Your task to perform on an android device: turn vacation reply on in the gmail app Image 0: 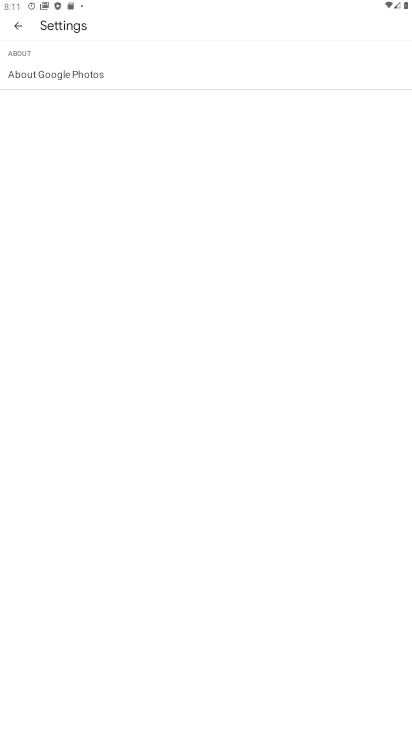
Step 0: press home button
Your task to perform on an android device: turn vacation reply on in the gmail app Image 1: 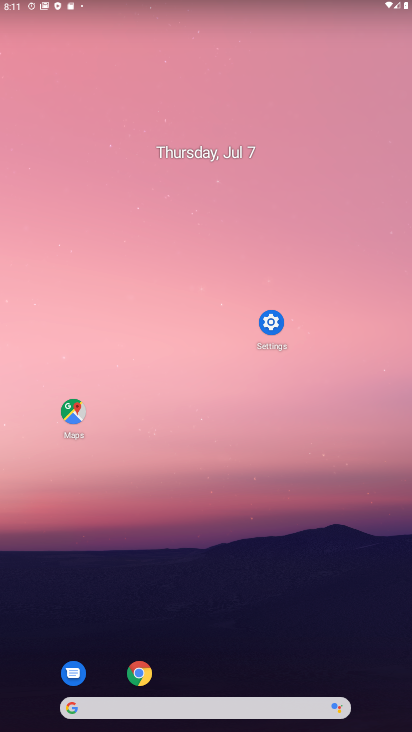
Step 1: drag from (376, 633) to (239, 121)
Your task to perform on an android device: turn vacation reply on in the gmail app Image 2: 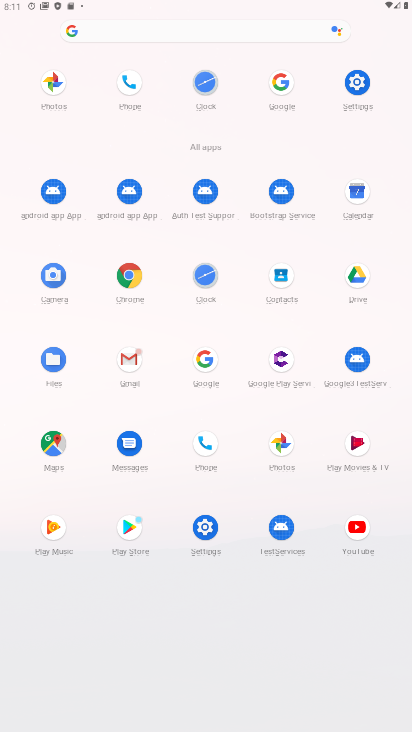
Step 2: drag from (127, 353) to (261, 445)
Your task to perform on an android device: turn vacation reply on in the gmail app Image 3: 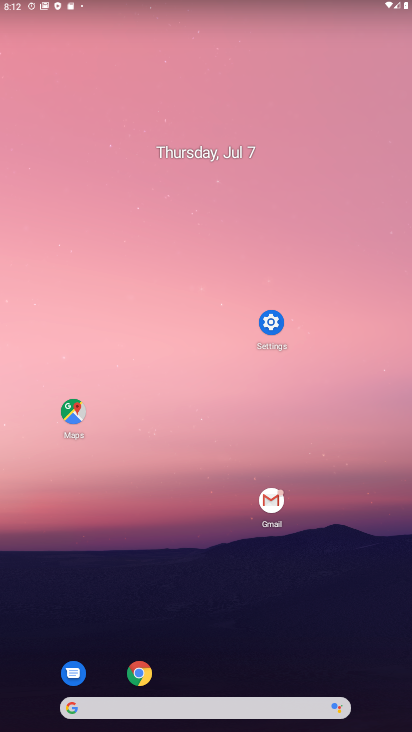
Step 3: click (268, 494)
Your task to perform on an android device: turn vacation reply on in the gmail app Image 4: 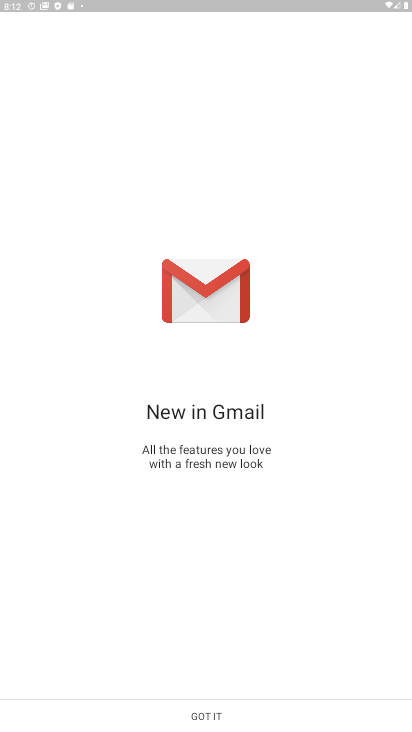
Step 4: click (222, 701)
Your task to perform on an android device: turn vacation reply on in the gmail app Image 5: 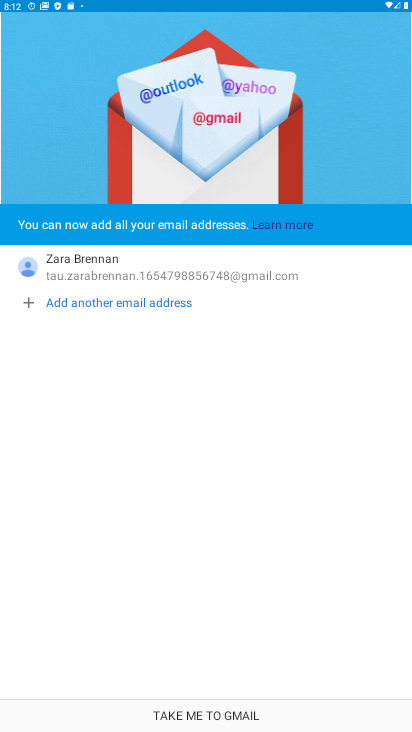
Step 5: click (222, 701)
Your task to perform on an android device: turn vacation reply on in the gmail app Image 6: 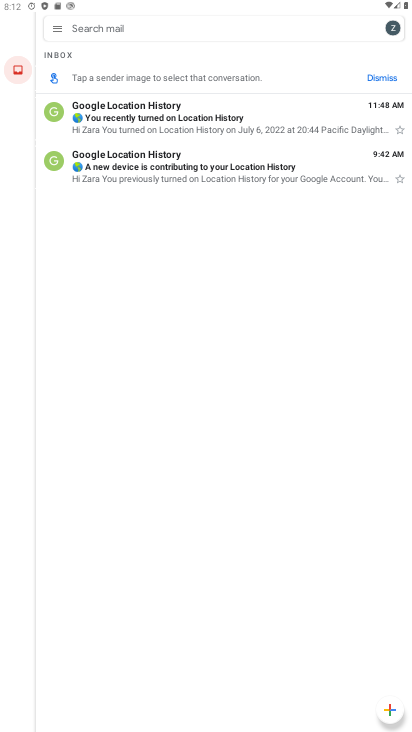
Step 6: press home button
Your task to perform on an android device: turn vacation reply on in the gmail app Image 7: 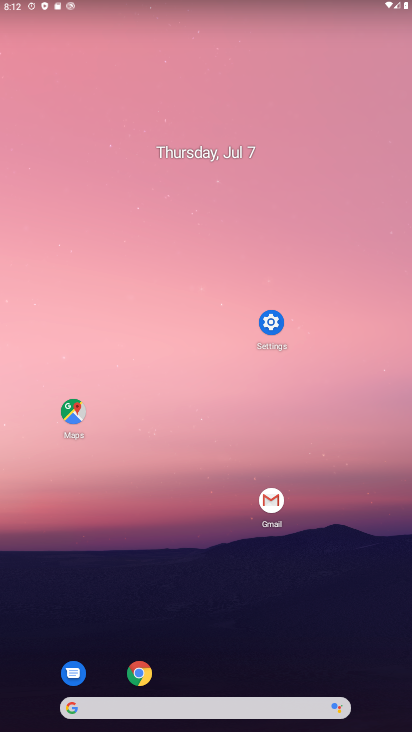
Step 7: click (270, 496)
Your task to perform on an android device: turn vacation reply on in the gmail app Image 8: 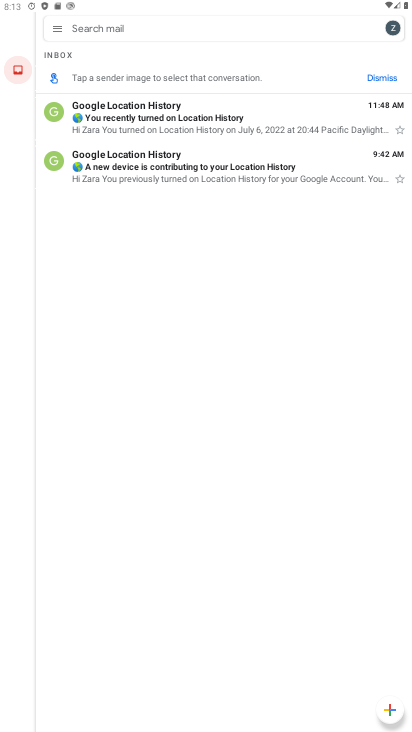
Step 8: click (55, 25)
Your task to perform on an android device: turn vacation reply on in the gmail app Image 9: 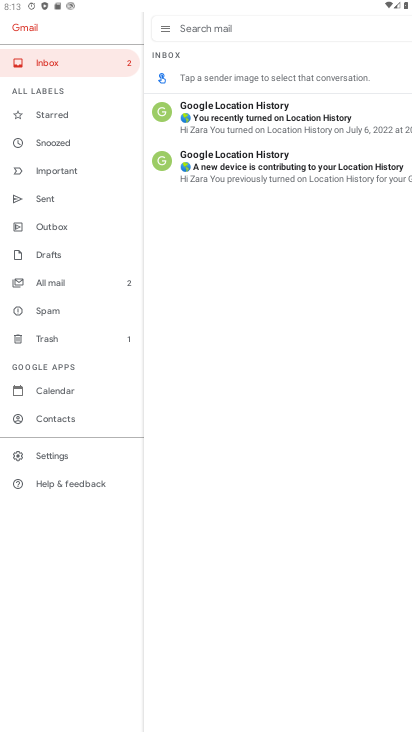
Step 9: click (61, 457)
Your task to perform on an android device: turn vacation reply on in the gmail app Image 10: 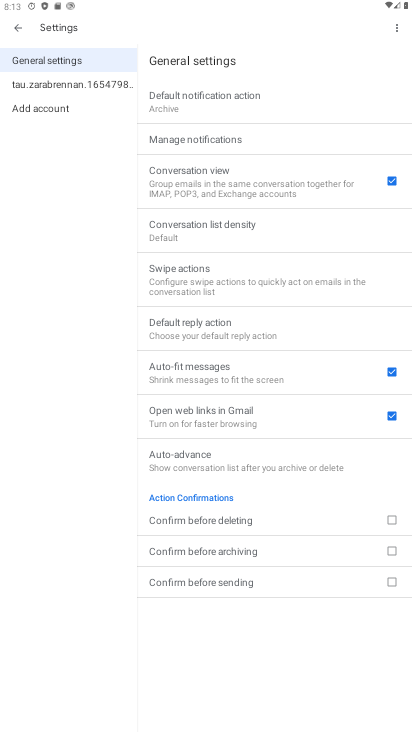
Step 10: click (65, 82)
Your task to perform on an android device: turn vacation reply on in the gmail app Image 11: 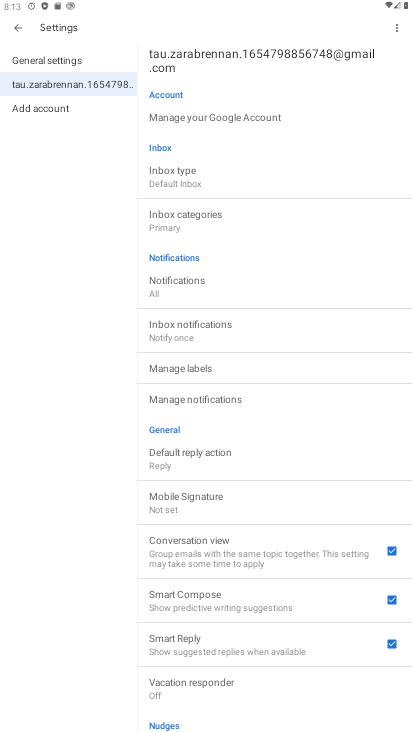
Step 11: click (189, 688)
Your task to perform on an android device: turn vacation reply on in the gmail app Image 12: 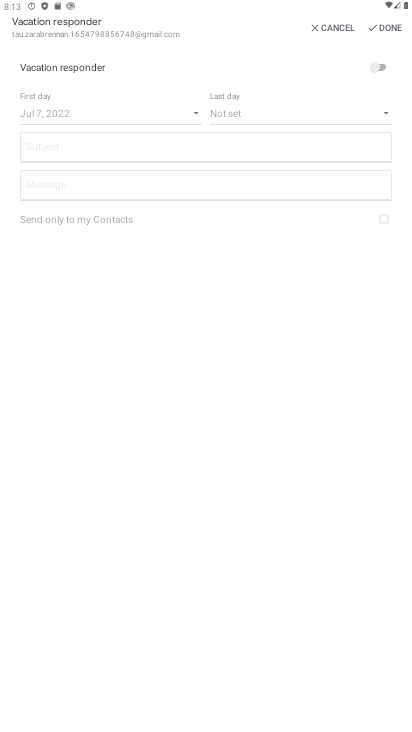
Step 12: click (381, 59)
Your task to perform on an android device: turn vacation reply on in the gmail app Image 13: 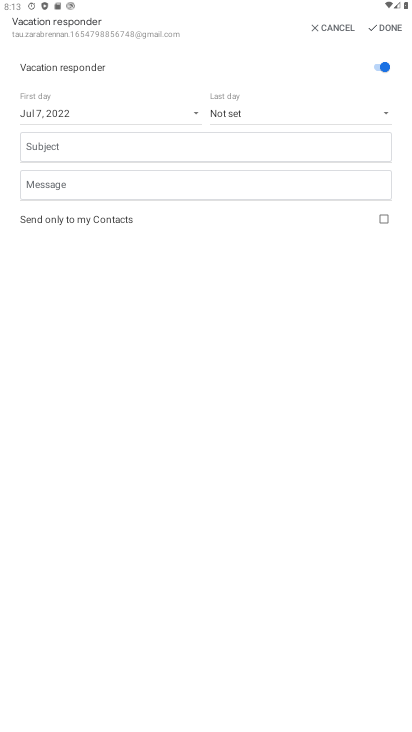
Step 13: task complete